Your task to perform on an android device: Go to wifi settings Image 0: 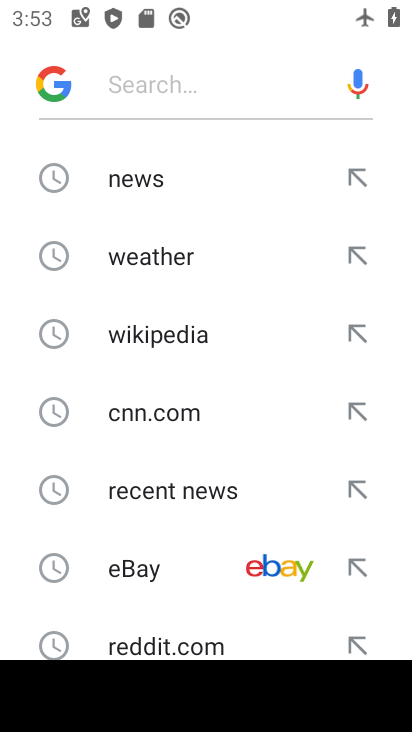
Step 0: press home button
Your task to perform on an android device: Go to wifi settings Image 1: 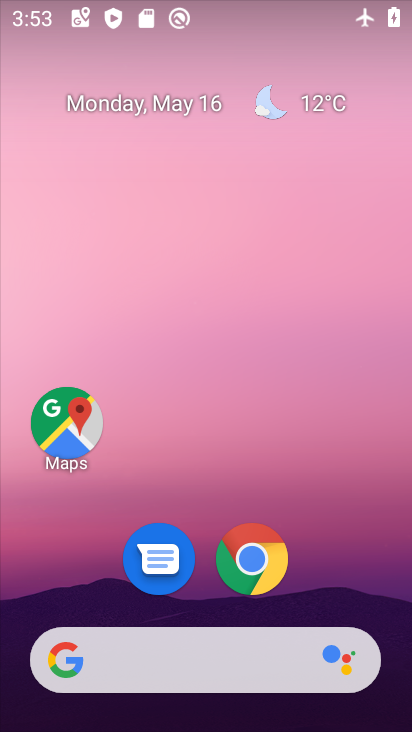
Step 1: drag from (363, 599) to (267, 3)
Your task to perform on an android device: Go to wifi settings Image 2: 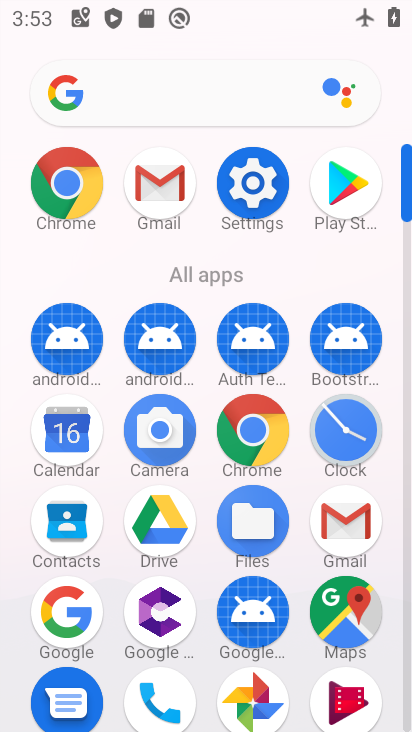
Step 2: click (251, 182)
Your task to perform on an android device: Go to wifi settings Image 3: 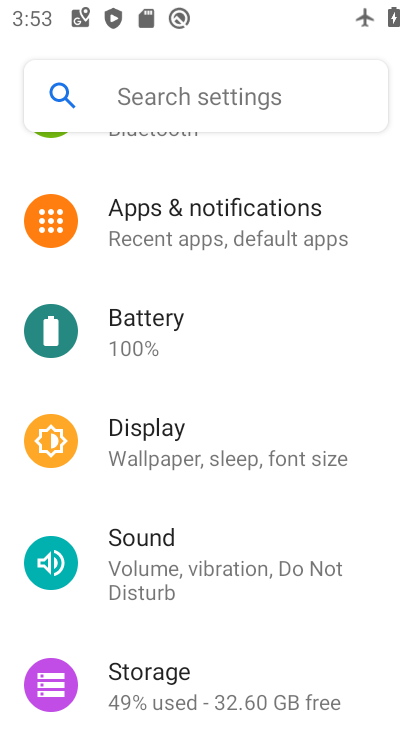
Step 3: drag from (251, 182) to (309, 618)
Your task to perform on an android device: Go to wifi settings Image 4: 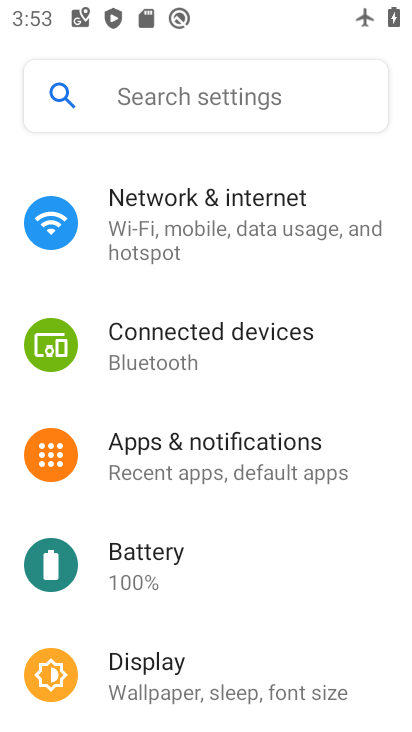
Step 4: click (251, 260)
Your task to perform on an android device: Go to wifi settings Image 5: 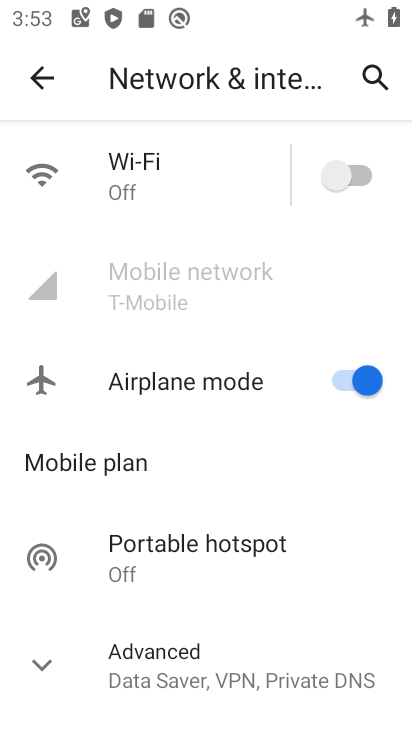
Step 5: click (330, 192)
Your task to perform on an android device: Go to wifi settings Image 6: 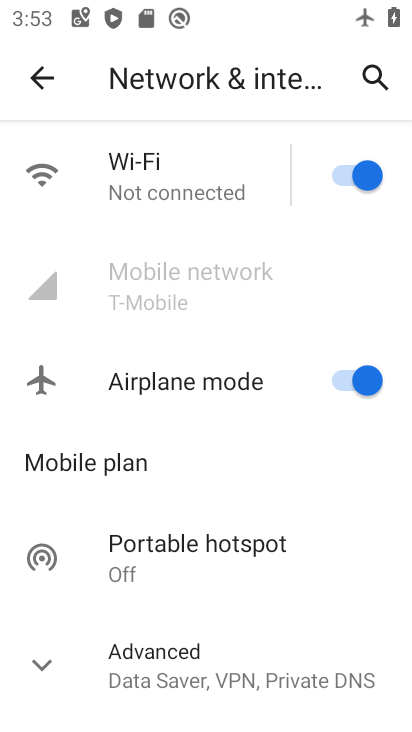
Step 6: click (343, 397)
Your task to perform on an android device: Go to wifi settings Image 7: 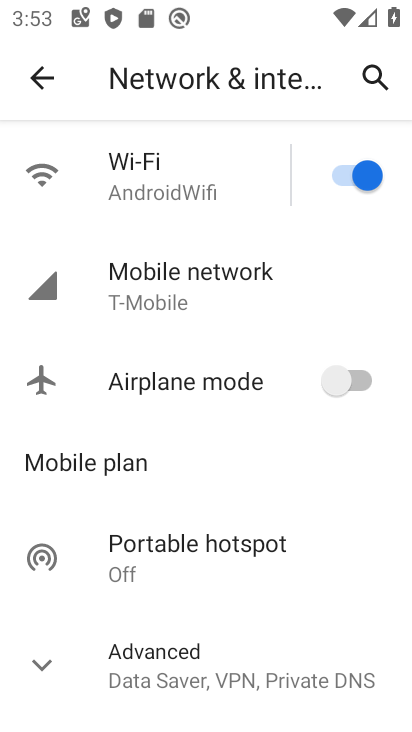
Step 7: task complete